Your task to perform on an android device: change the clock display to digital Image 0: 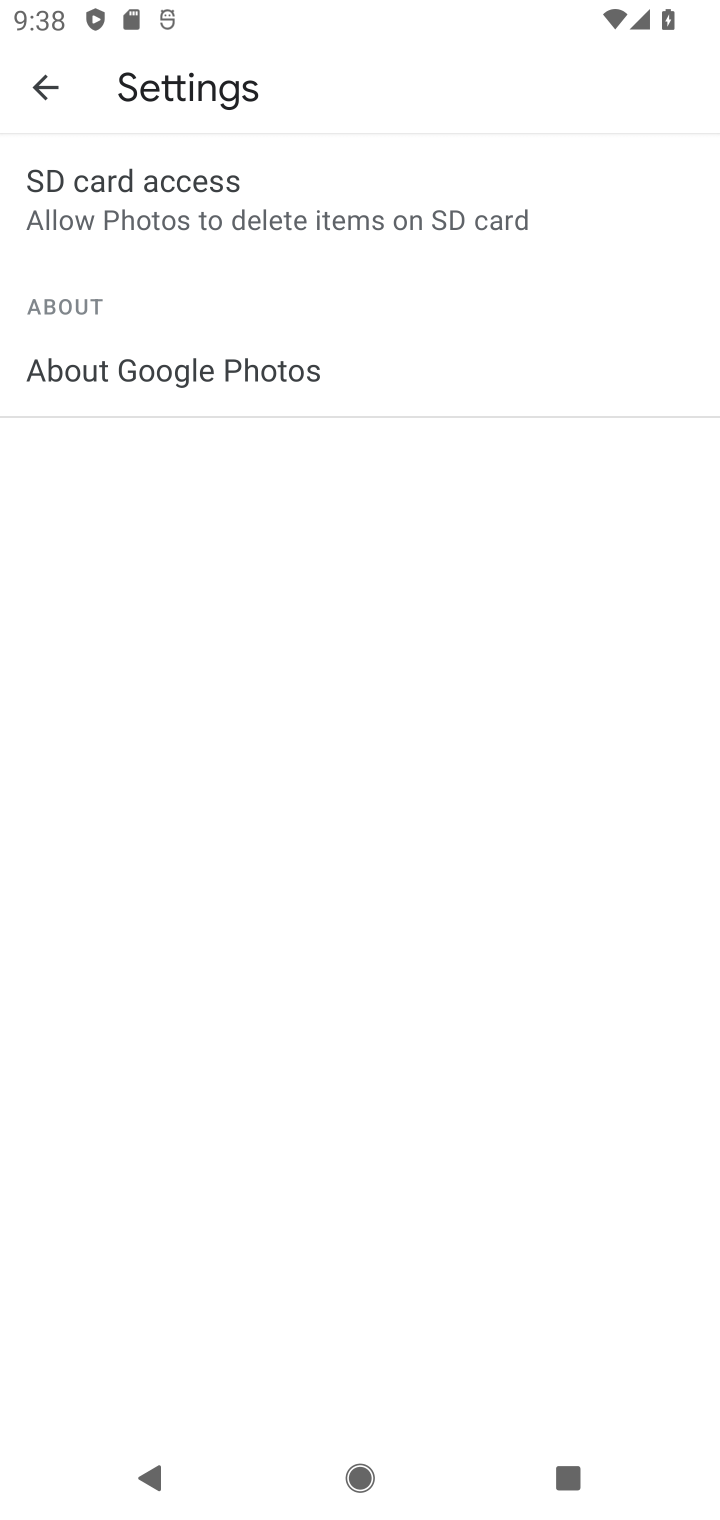
Step 0: press home button
Your task to perform on an android device: change the clock display to digital Image 1: 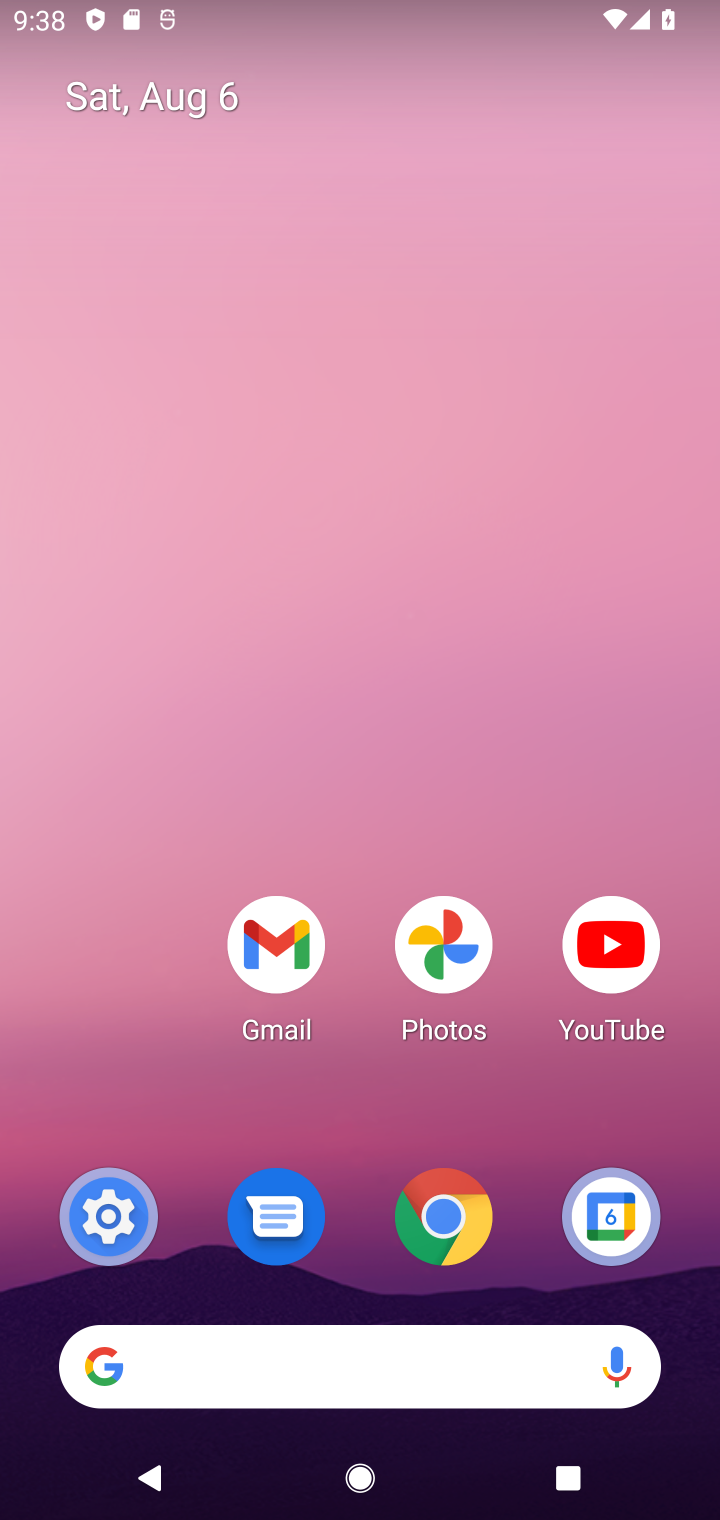
Step 1: drag from (327, 1211) to (350, 896)
Your task to perform on an android device: change the clock display to digital Image 2: 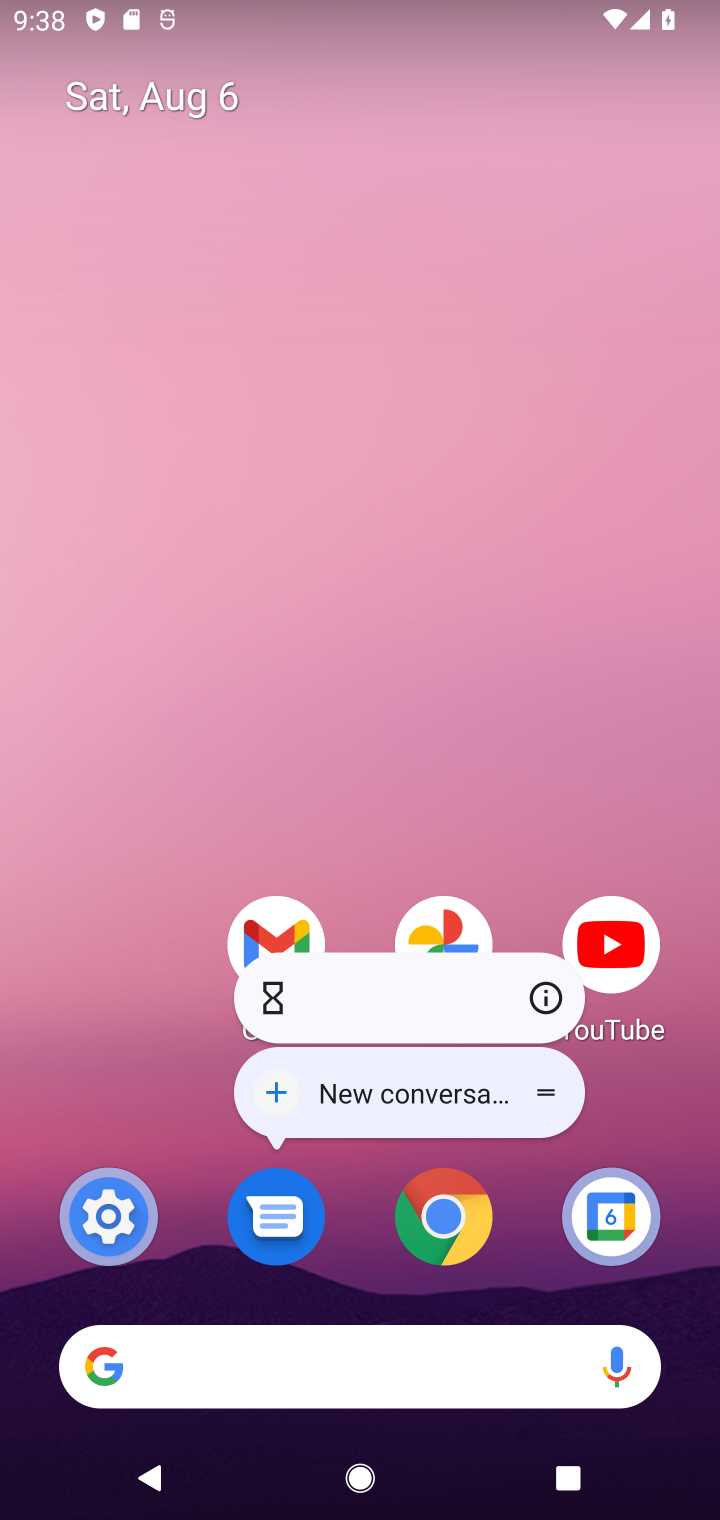
Step 2: drag from (399, 1323) to (385, 477)
Your task to perform on an android device: change the clock display to digital Image 3: 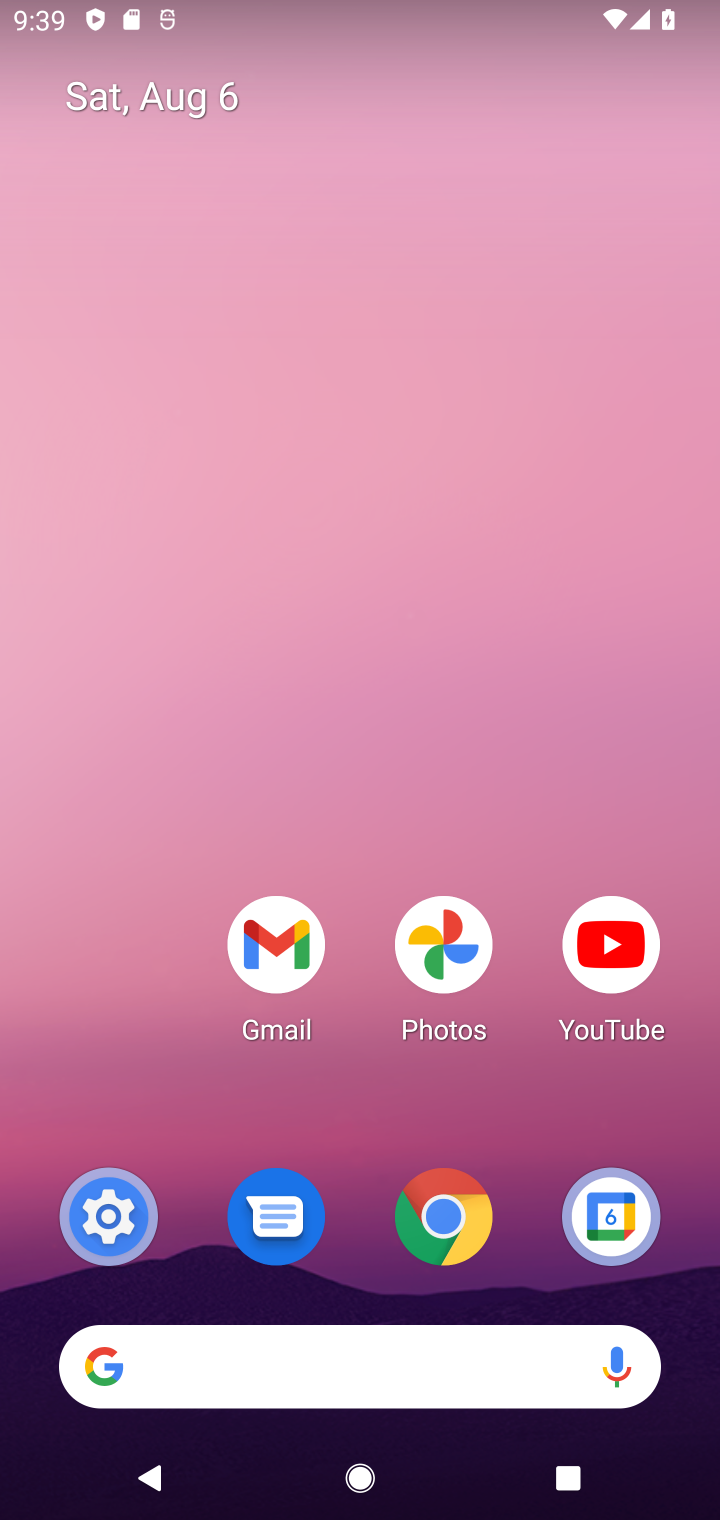
Step 3: drag from (201, 1227) to (180, 575)
Your task to perform on an android device: change the clock display to digital Image 4: 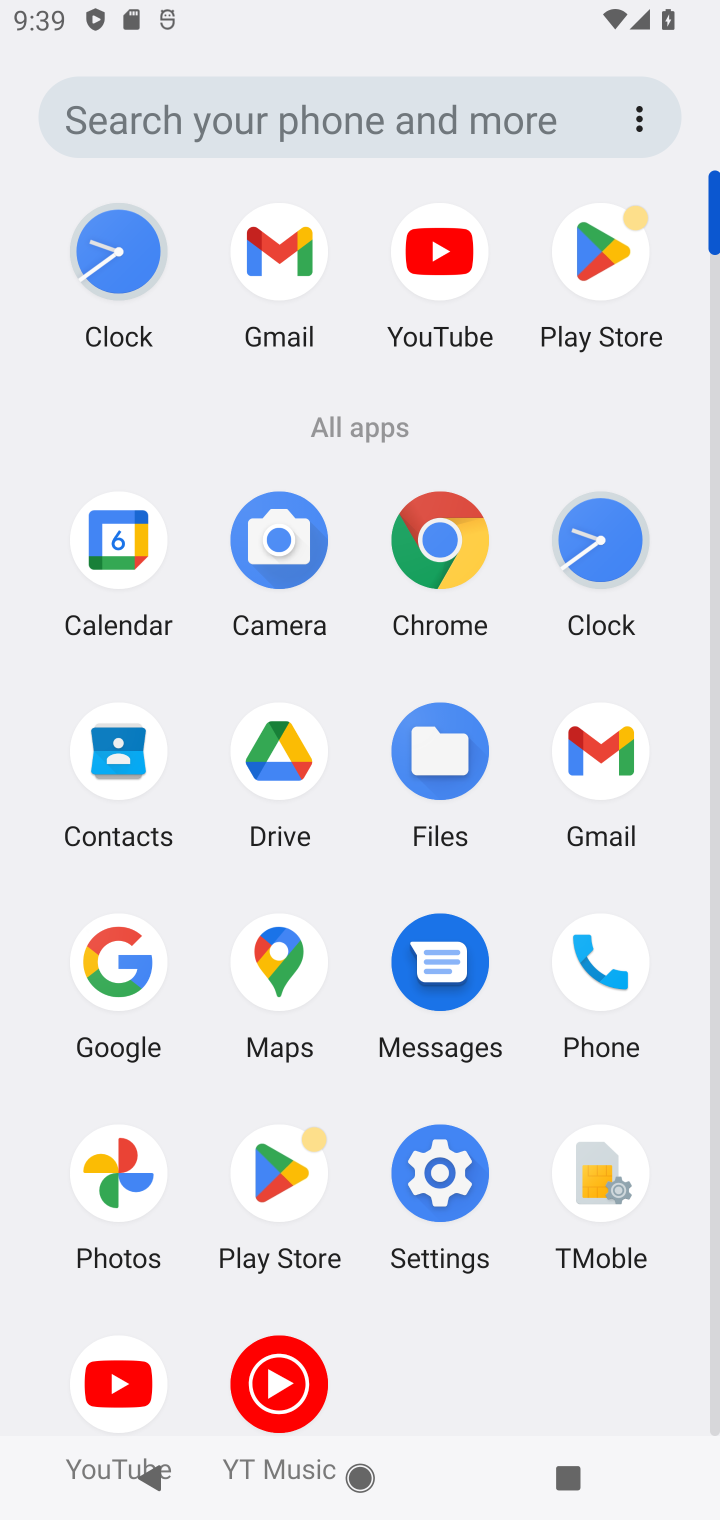
Step 4: click (593, 548)
Your task to perform on an android device: change the clock display to digital Image 5: 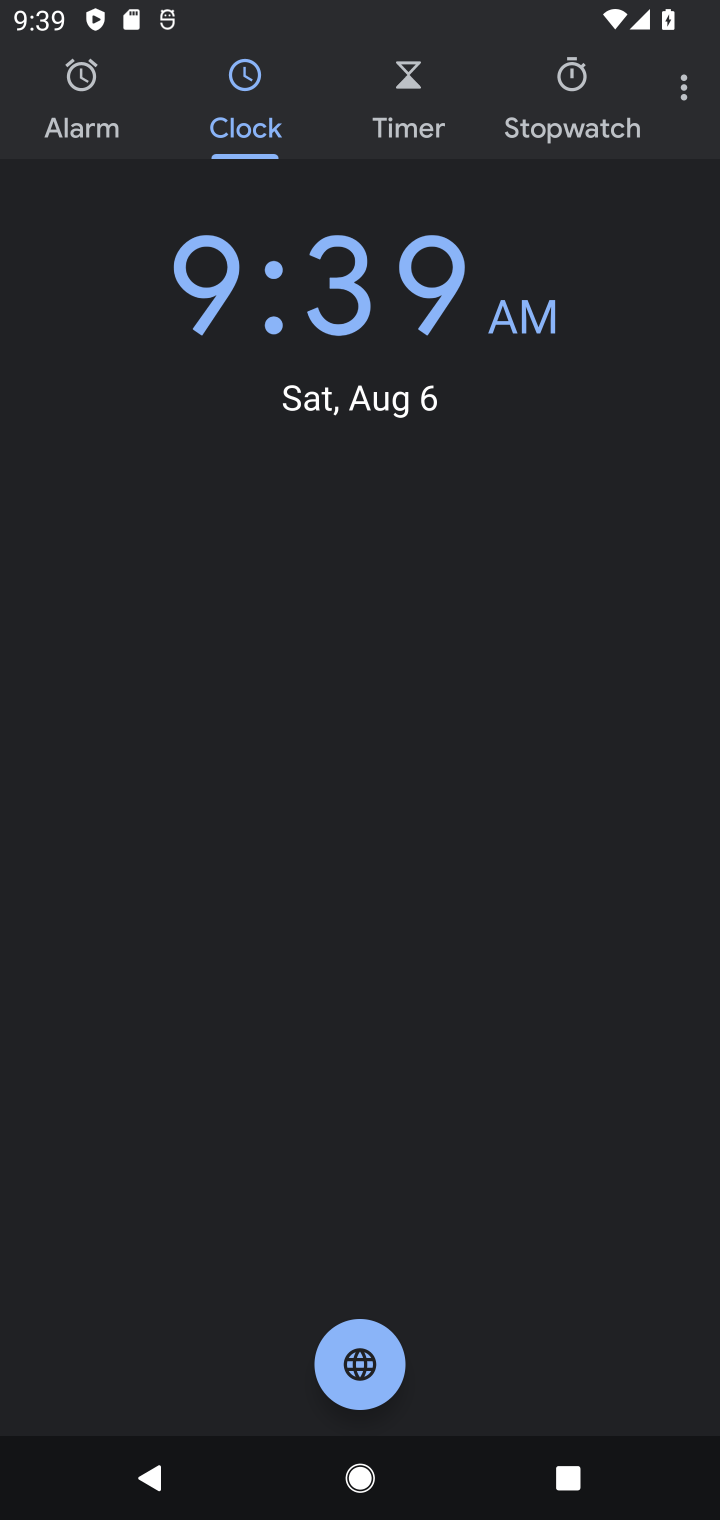
Step 5: click (670, 89)
Your task to perform on an android device: change the clock display to digital Image 6: 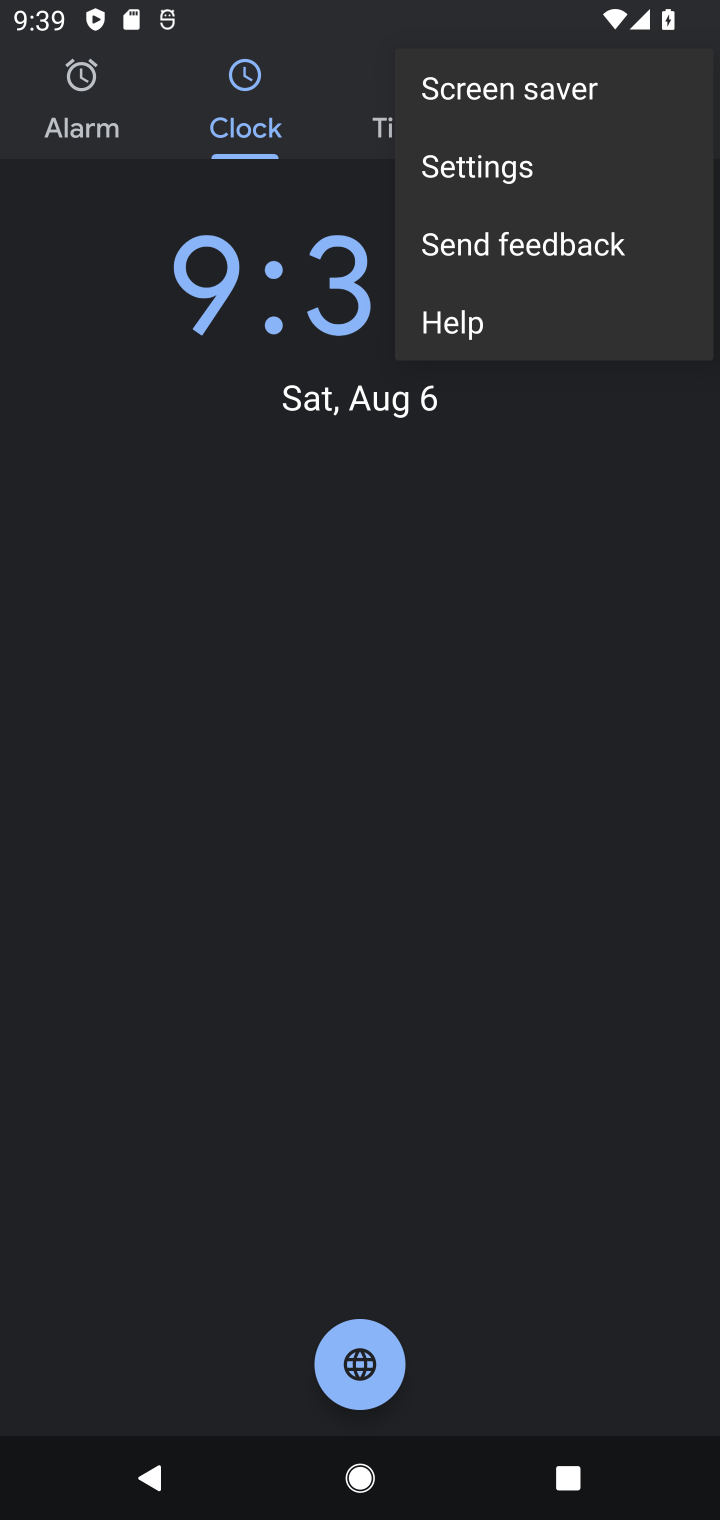
Step 6: click (544, 165)
Your task to perform on an android device: change the clock display to digital Image 7: 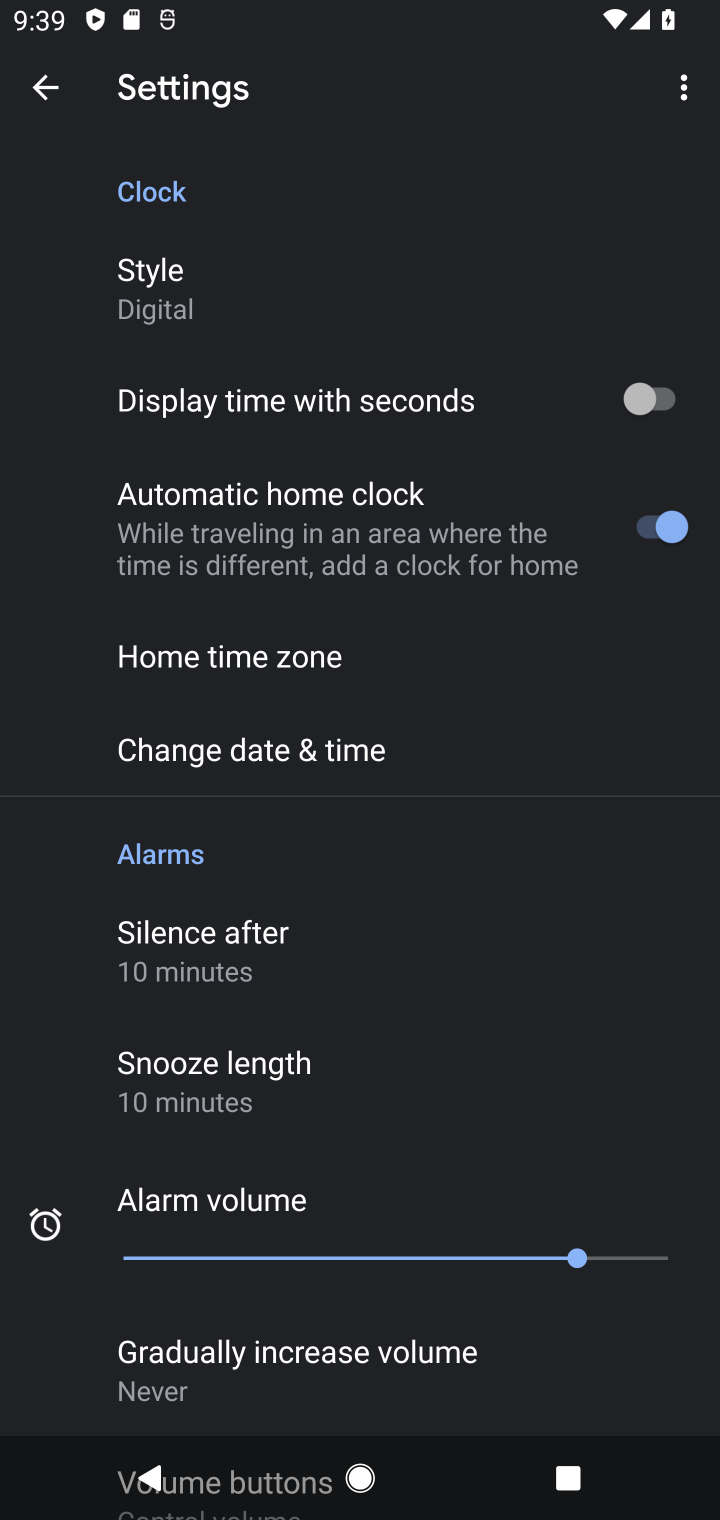
Step 7: task complete